Your task to perform on an android device: open wifi settings Image 0: 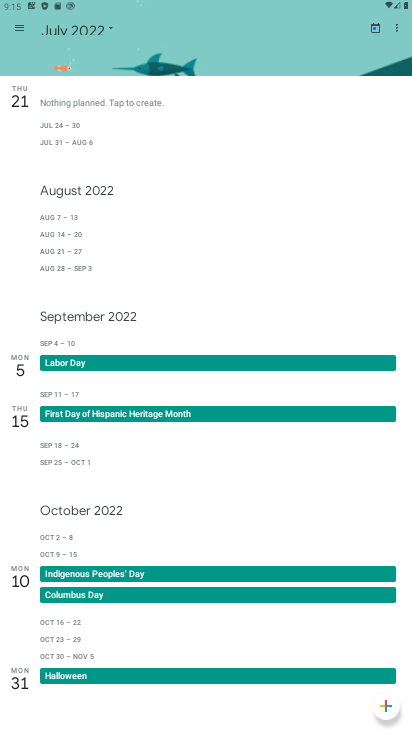
Step 0: press home button
Your task to perform on an android device: open wifi settings Image 1: 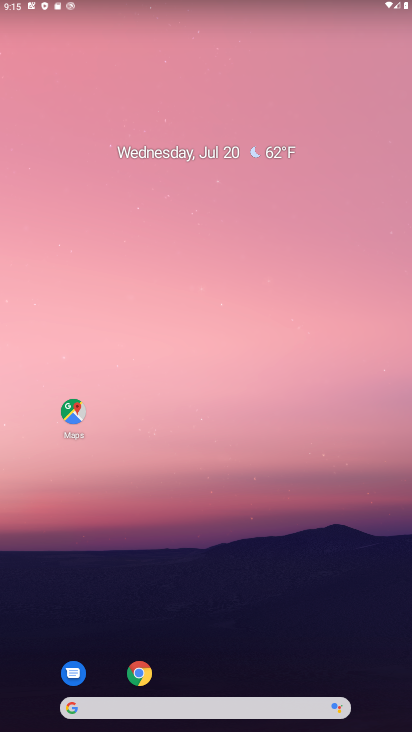
Step 1: drag from (401, 725) to (299, 222)
Your task to perform on an android device: open wifi settings Image 2: 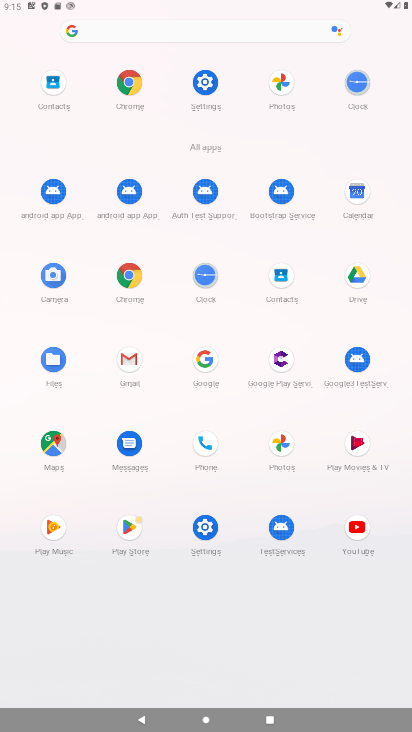
Step 2: click (208, 82)
Your task to perform on an android device: open wifi settings Image 3: 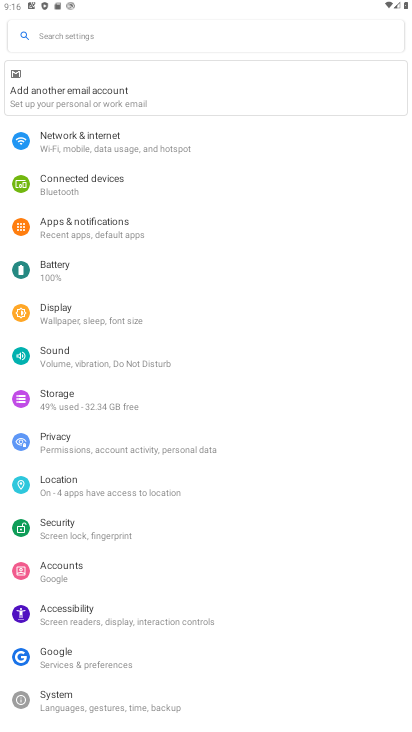
Step 3: click (71, 151)
Your task to perform on an android device: open wifi settings Image 4: 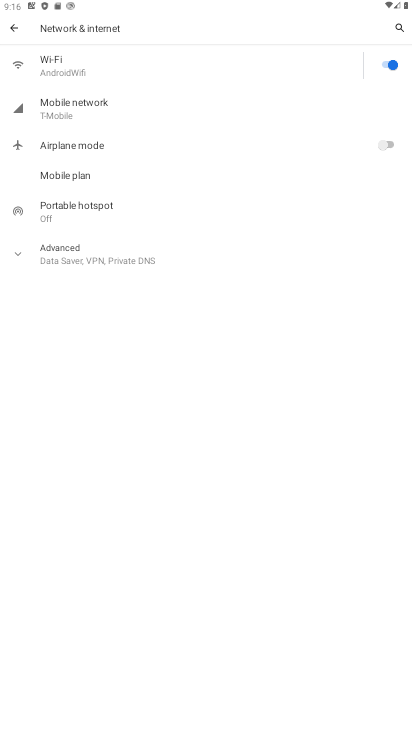
Step 4: click (51, 71)
Your task to perform on an android device: open wifi settings Image 5: 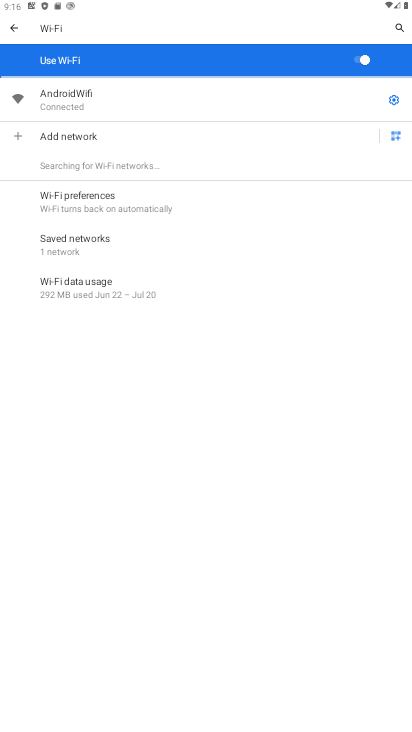
Step 5: click (389, 100)
Your task to perform on an android device: open wifi settings Image 6: 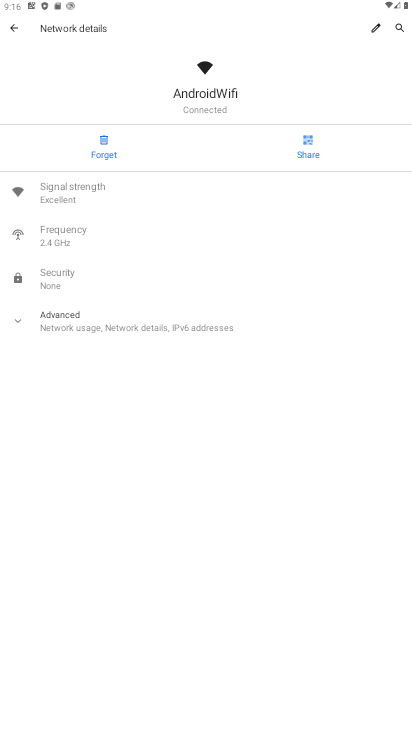
Step 6: click (20, 316)
Your task to perform on an android device: open wifi settings Image 7: 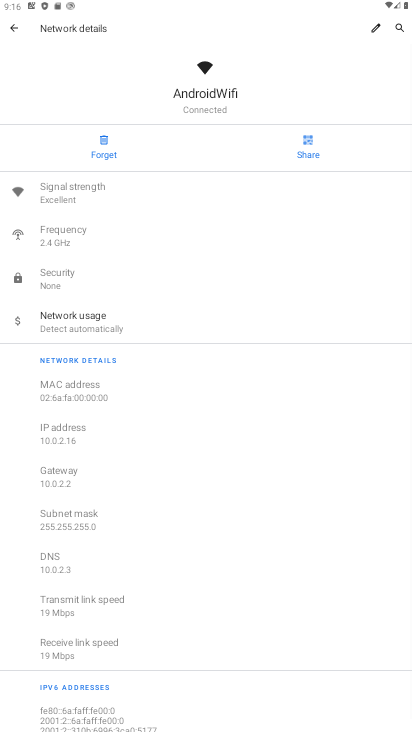
Step 7: task complete